Your task to perform on an android device: Open the calendar app, open the side menu, and click the "Day" option Image 0: 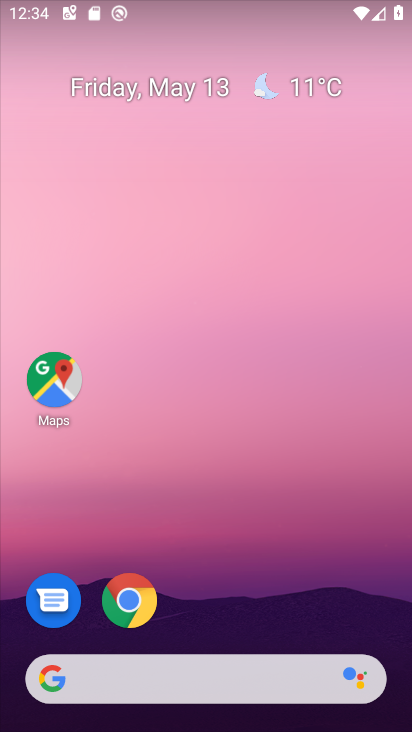
Step 0: drag from (219, 615) to (254, 37)
Your task to perform on an android device: Open the calendar app, open the side menu, and click the "Day" option Image 1: 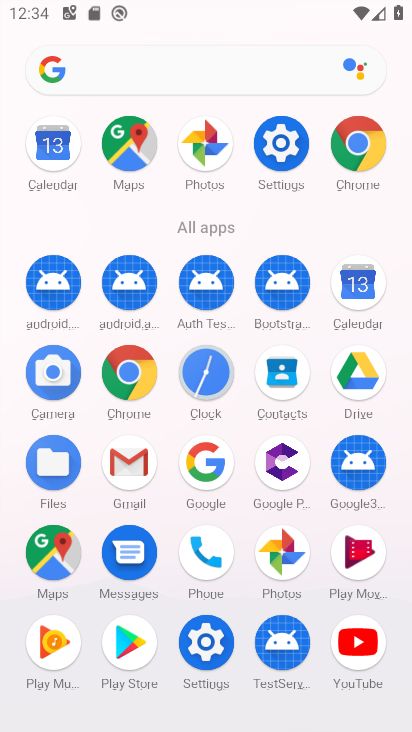
Step 1: click (365, 271)
Your task to perform on an android device: Open the calendar app, open the side menu, and click the "Day" option Image 2: 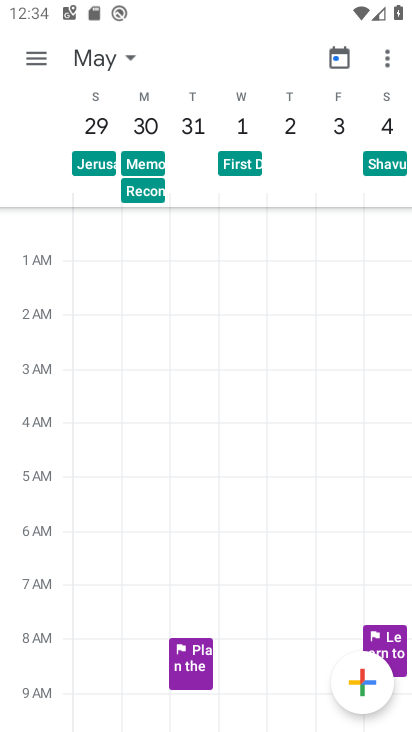
Step 2: click (43, 70)
Your task to perform on an android device: Open the calendar app, open the side menu, and click the "Day" option Image 3: 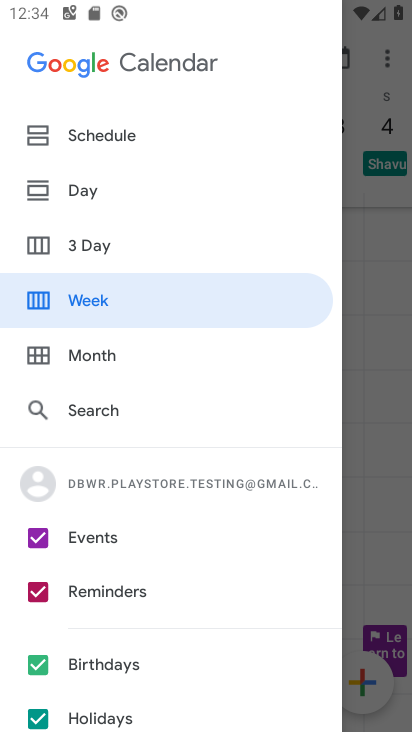
Step 3: click (86, 192)
Your task to perform on an android device: Open the calendar app, open the side menu, and click the "Day" option Image 4: 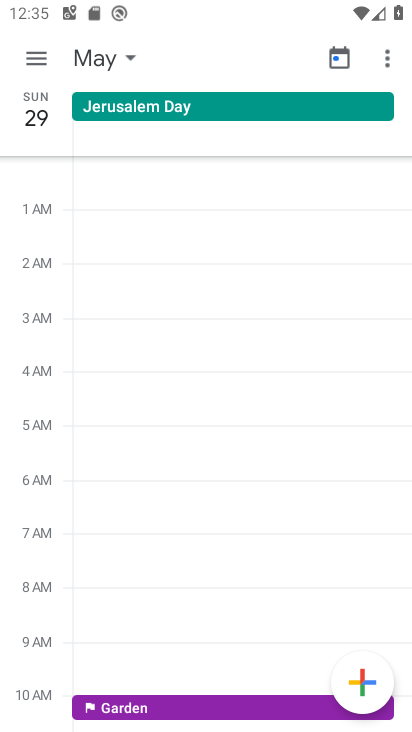
Step 4: task complete